Your task to perform on an android device: toggle data saver in the chrome app Image 0: 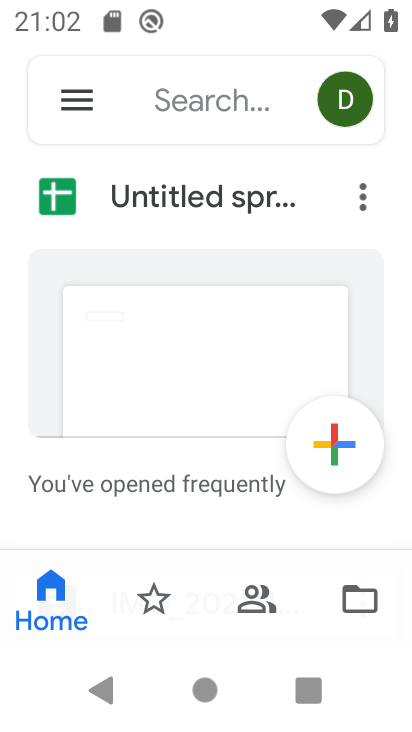
Step 0: press home button
Your task to perform on an android device: toggle data saver in the chrome app Image 1: 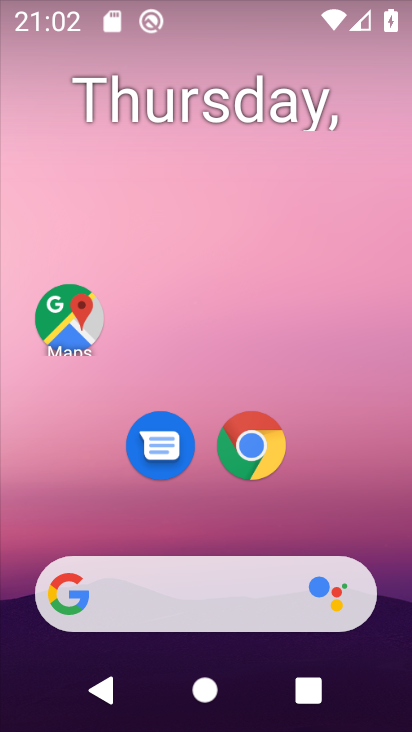
Step 1: click (246, 448)
Your task to perform on an android device: toggle data saver in the chrome app Image 2: 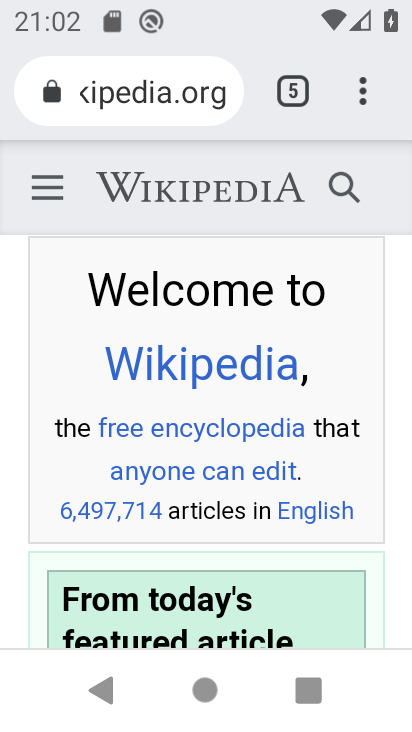
Step 2: click (366, 90)
Your task to perform on an android device: toggle data saver in the chrome app Image 3: 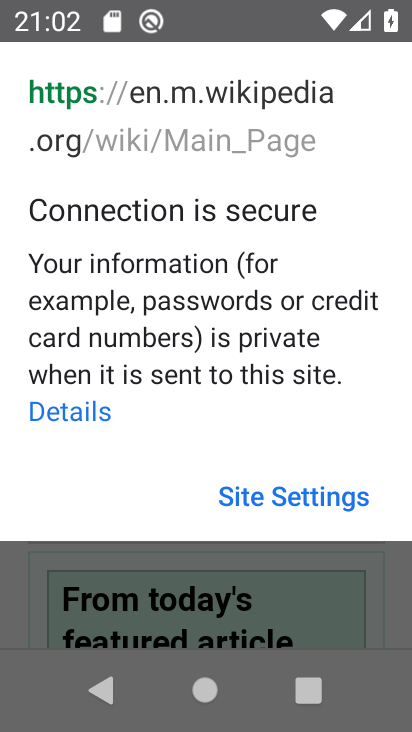
Step 3: press back button
Your task to perform on an android device: toggle data saver in the chrome app Image 4: 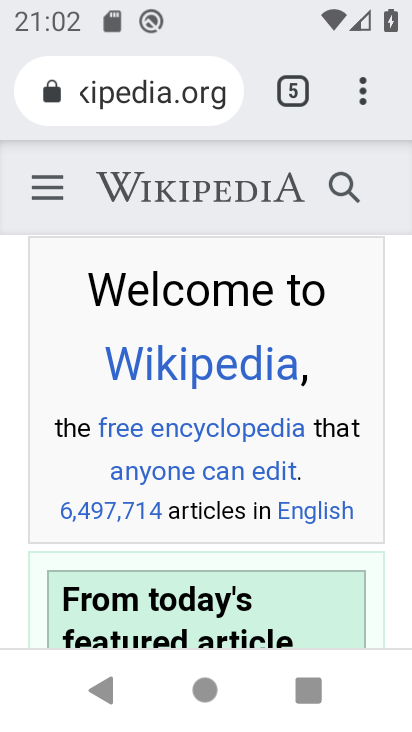
Step 4: click (360, 90)
Your task to perform on an android device: toggle data saver in the chrome app Image 5: 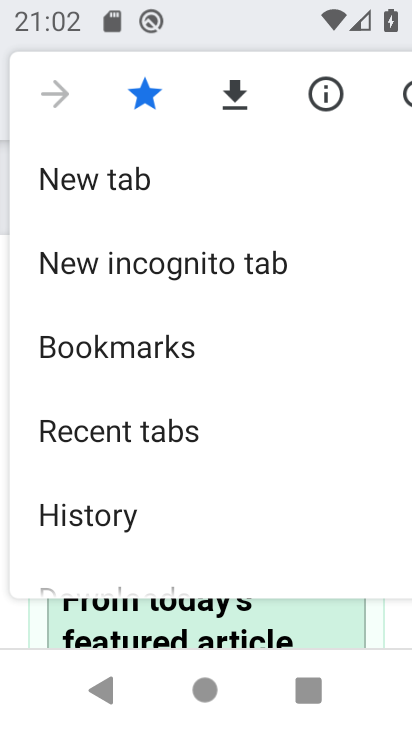
Step 5: drag from (162, 542) to (151, 253)
Your task to perform on an android device: toggle data saver in the chrome app Image 6: 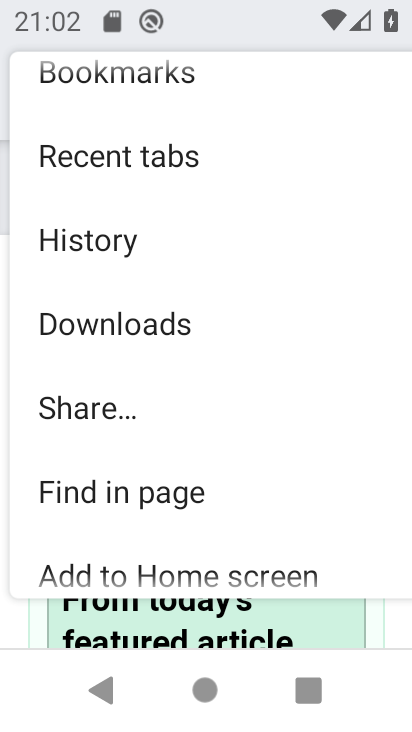
Step 6: drag from (141, 515) to (130, 155)
Your task to perform on an android device: toggle data saver in the chrome app Image 7: 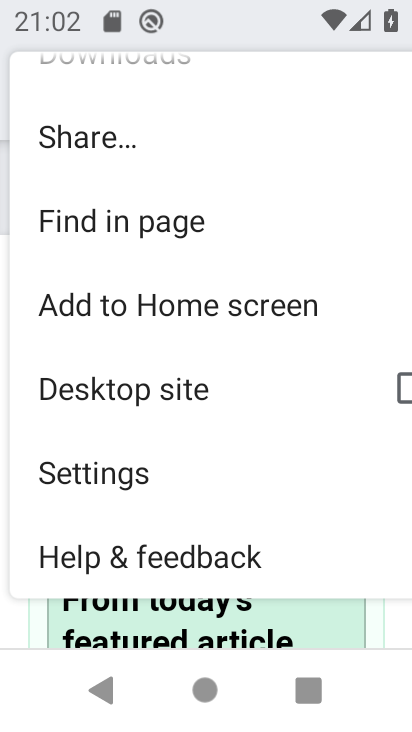
Step 7: click (102, 476)
Your task to perform on an android device: toggle data saver in the chrome app Image 8: 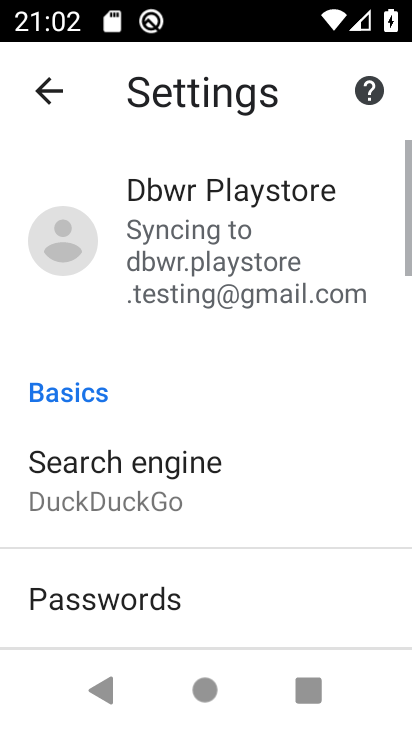
Step 8: drag from (133, 531) to (135, 203)
Your task to perform on an android device: toggle data saver in the chrome app Image 9: 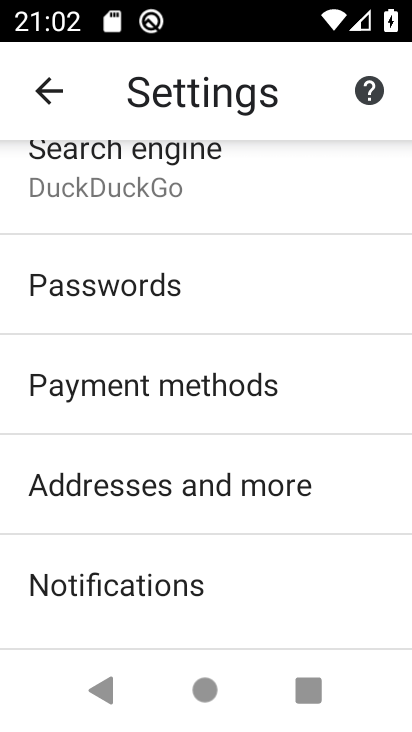
Step 9: drag from (163, 583) to (188, 170)
Your task to perform on an android device: toggle data saver in the chrome app Image 10: 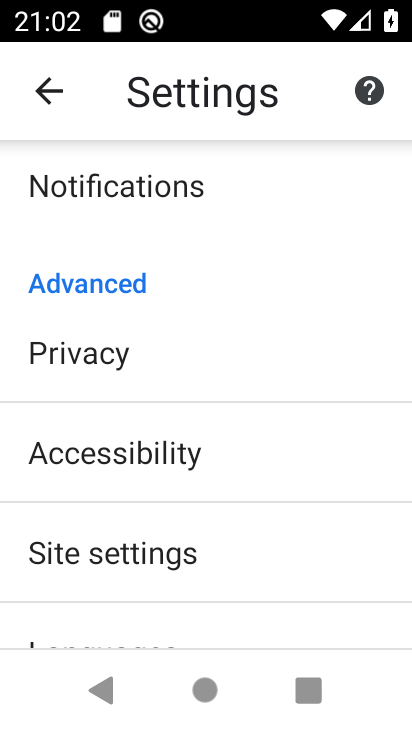
Step 10: drag from (239, 568) to (238, 260)
Your task to perform on an android device: toggle data saver in the chrome app Image 11: 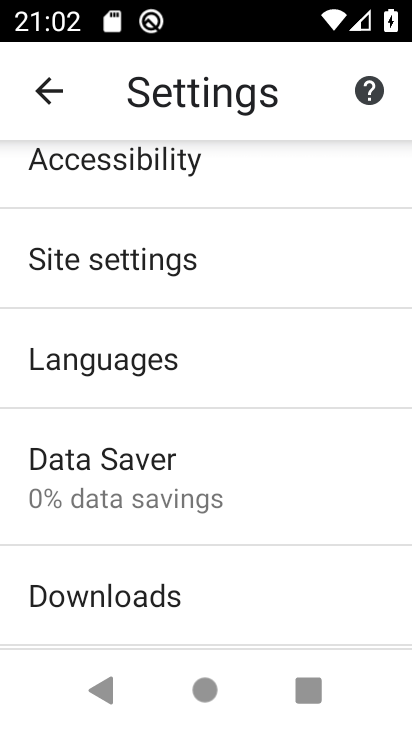
Step 11: click (128, 471)
Your task to perform on an android device: toggle data saver in the chrome app Image 12: 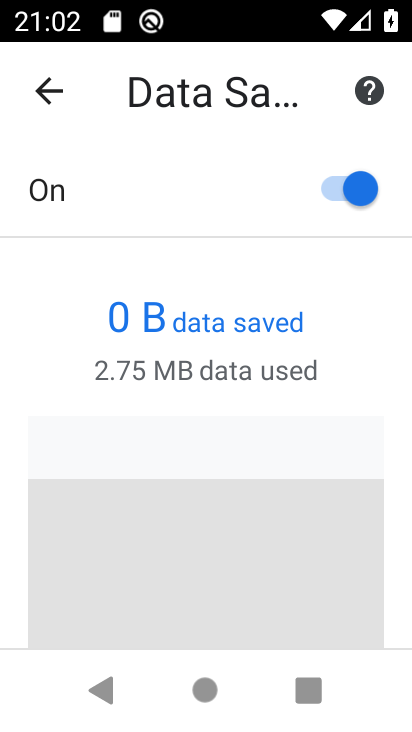
Step 12: click (344, 186)
Your task to perform on an android device: toggle data saver in the chrome app Image 13: 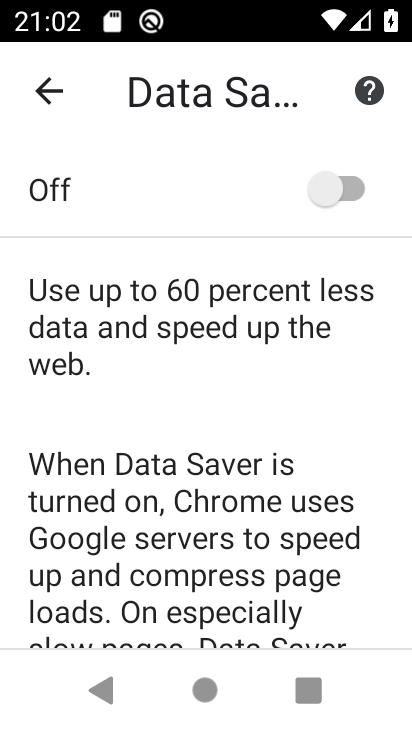
Step 13: task complete